Your task to perform on an android device: turn on translation in the chrome app Image 0: 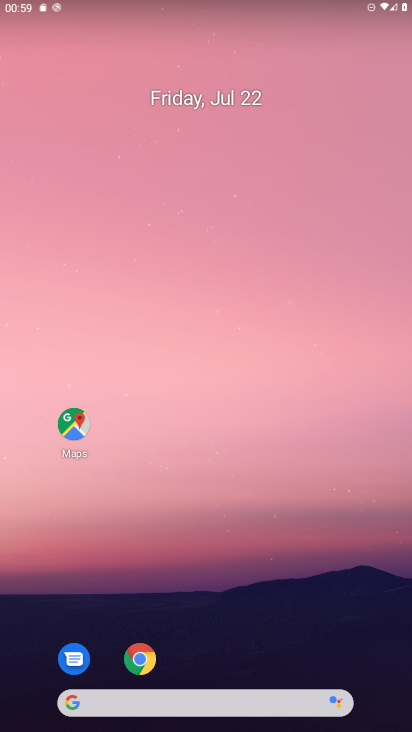
Step 0: click (142, 659)
Your task to perform on an android device: turn on translation in the chrome app Image 1: 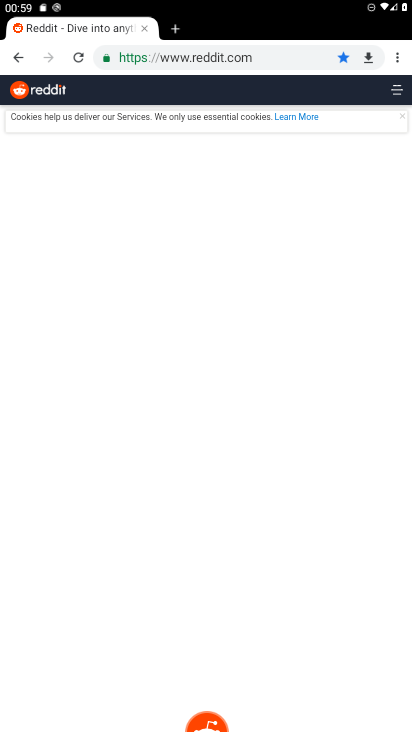
Step 1: click (397, 58)
Your task to perform on an android device: turn on translation in the chrome app Image 2: 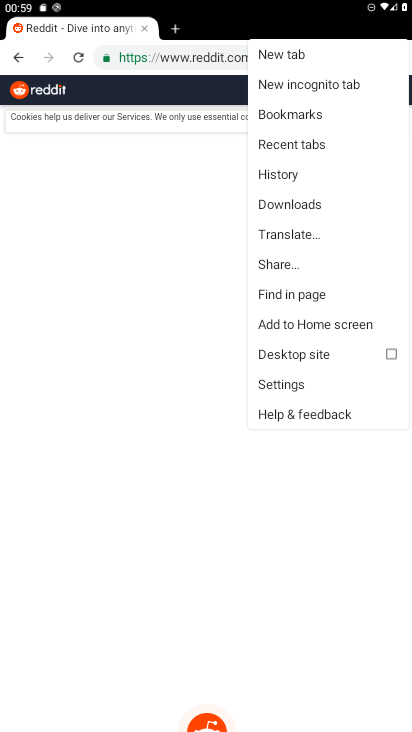
Step 2: click (287, 384)
Your task to perform on an android device: turn on translation in the chrome app Image 3: 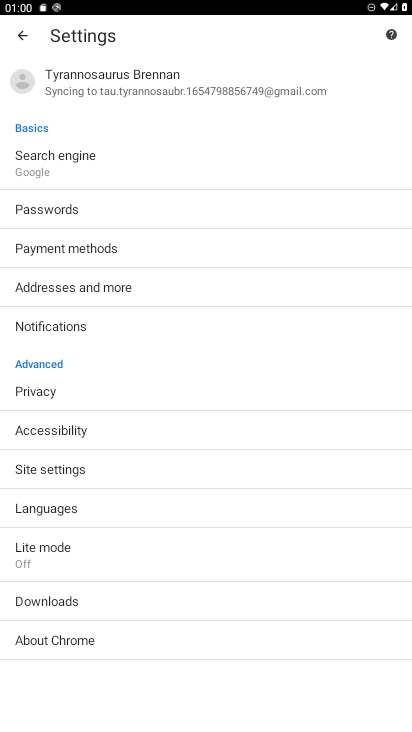
Step 3: click (48, 508)
Your task to perform on an android device: turn on translation in the chrome app Image 4: 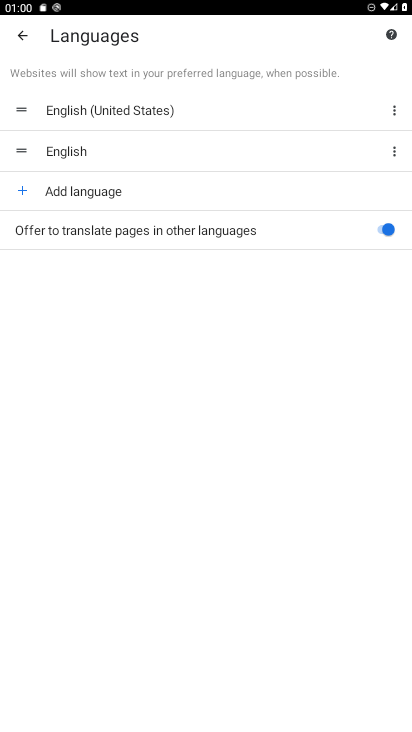
Step 4: task complete